Your task to perform on an android device: Open settings on Google Maps Image 0: 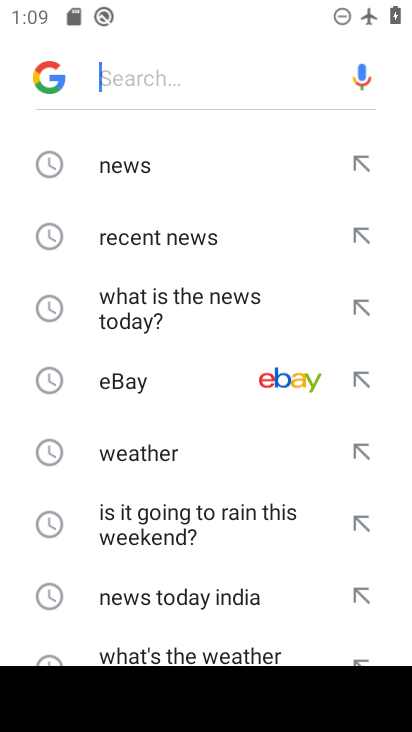
Step 0: press home button
Your task to perform on an android device: Open settings on Google Maps Image 1: 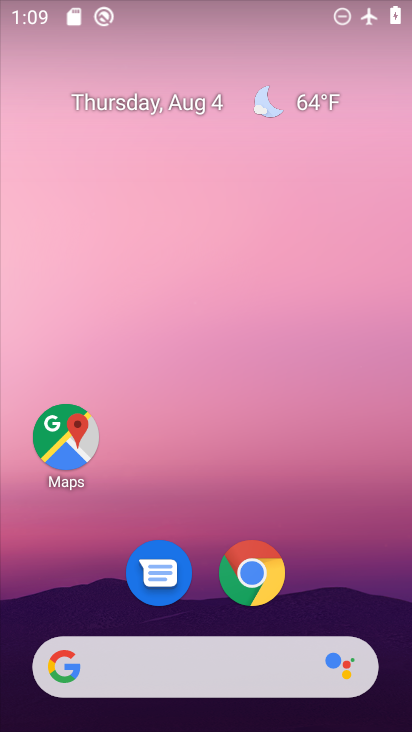
Step 1: drag from (349, 584) to (307, 121)
Your task to perform on an android device: Open settings on Google Maps Image 2: 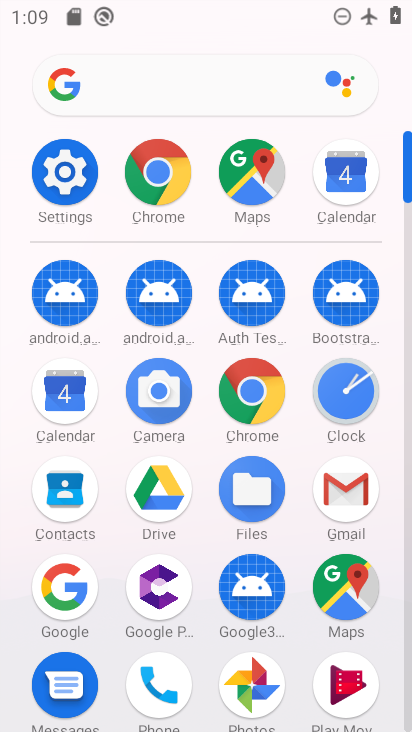
Step 2: click (250, 169)
Your task to perform on an android device: Open settings on Google Maps Image 3: 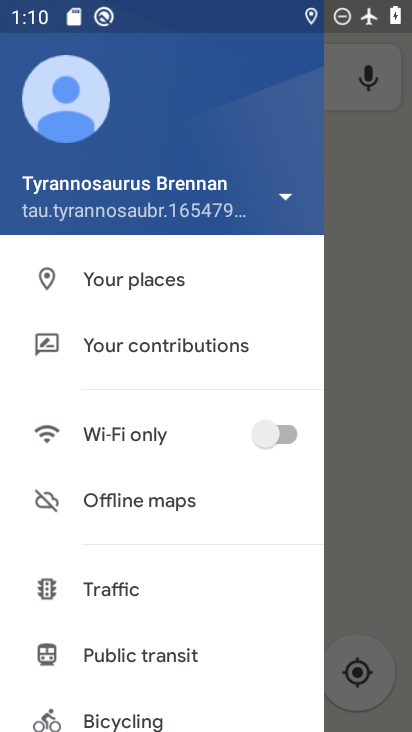
Step 3: drag from (177, 600) to (229, 107)
Your task to perform on an android device: Open settings on Google Maps Image 4: 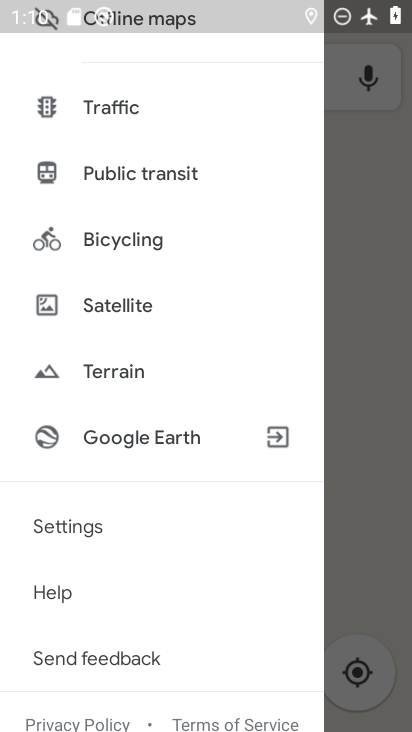
Step 4: drag from (167, 595) to (197, 355)
Your task to perform on an android device: Open settings on Google Maps Image 5: 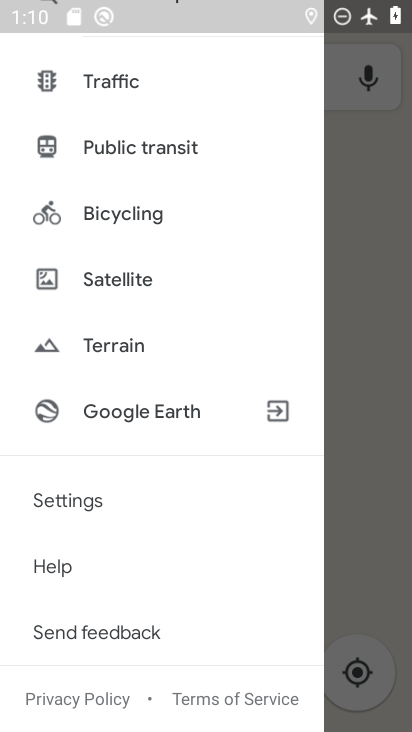
Step 5: click (72, 508)
Your task to perform on an android device: Open settings on Google Maps Image 6: 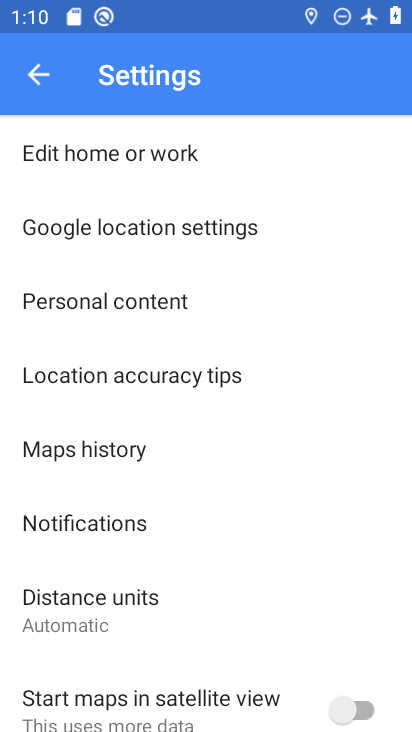
Step 6: task complete